Your task to perform on an android device: Search for Mexican restaurants on Maps Image 0: 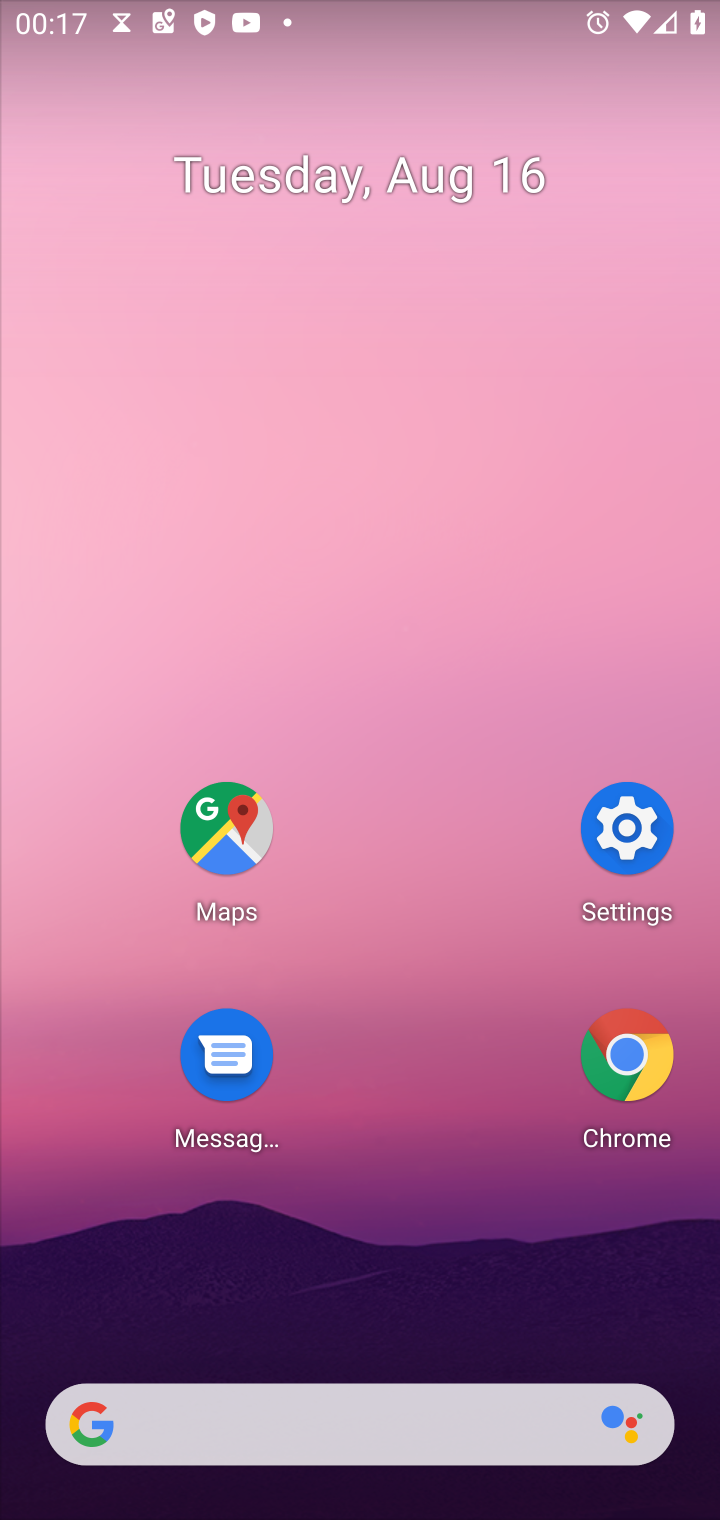
Step 0: press home button
Your task to perform on an android device: Search for Mexican restaurants on Maps Image 1: 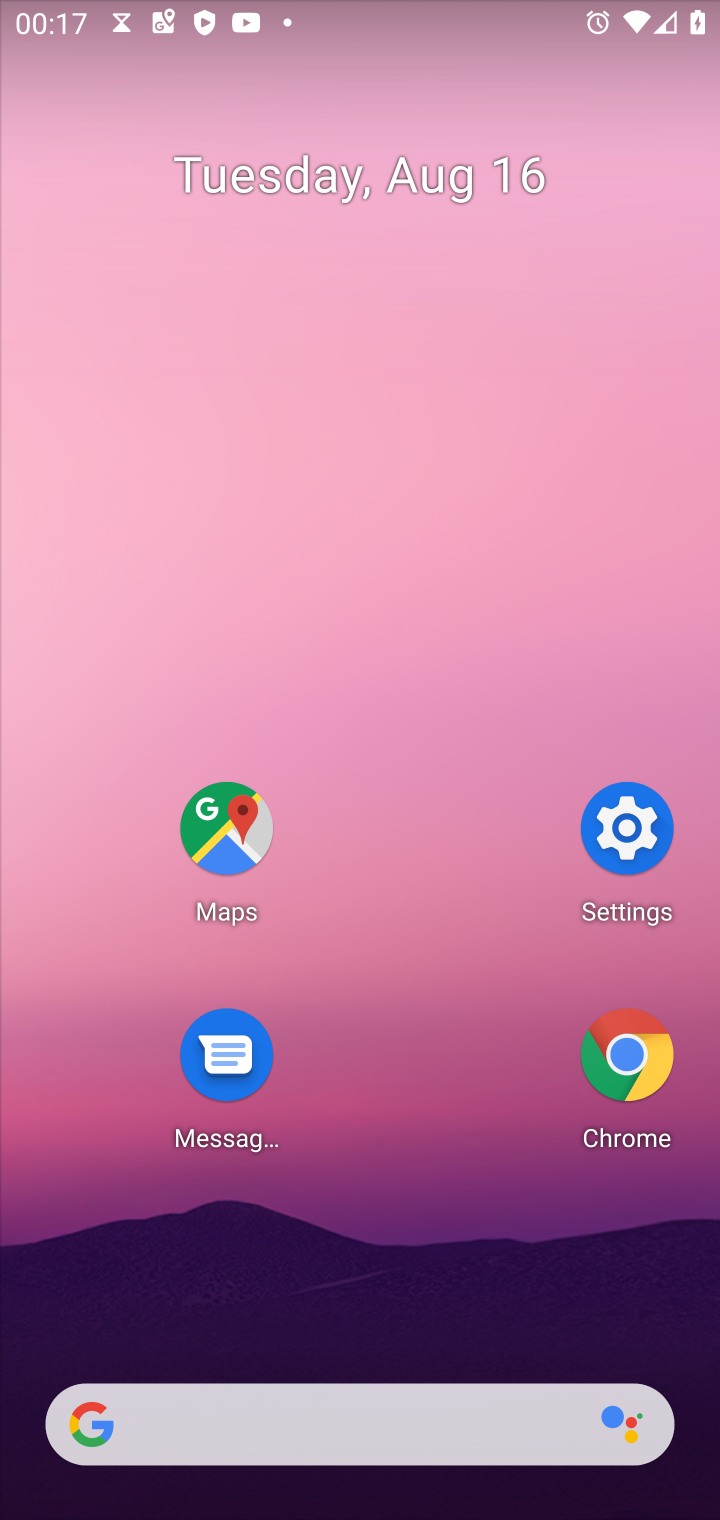
Step 1: click (214, 837)
Your task to perform on an android device: Search for Mexican restaurants on Maps Image 2: 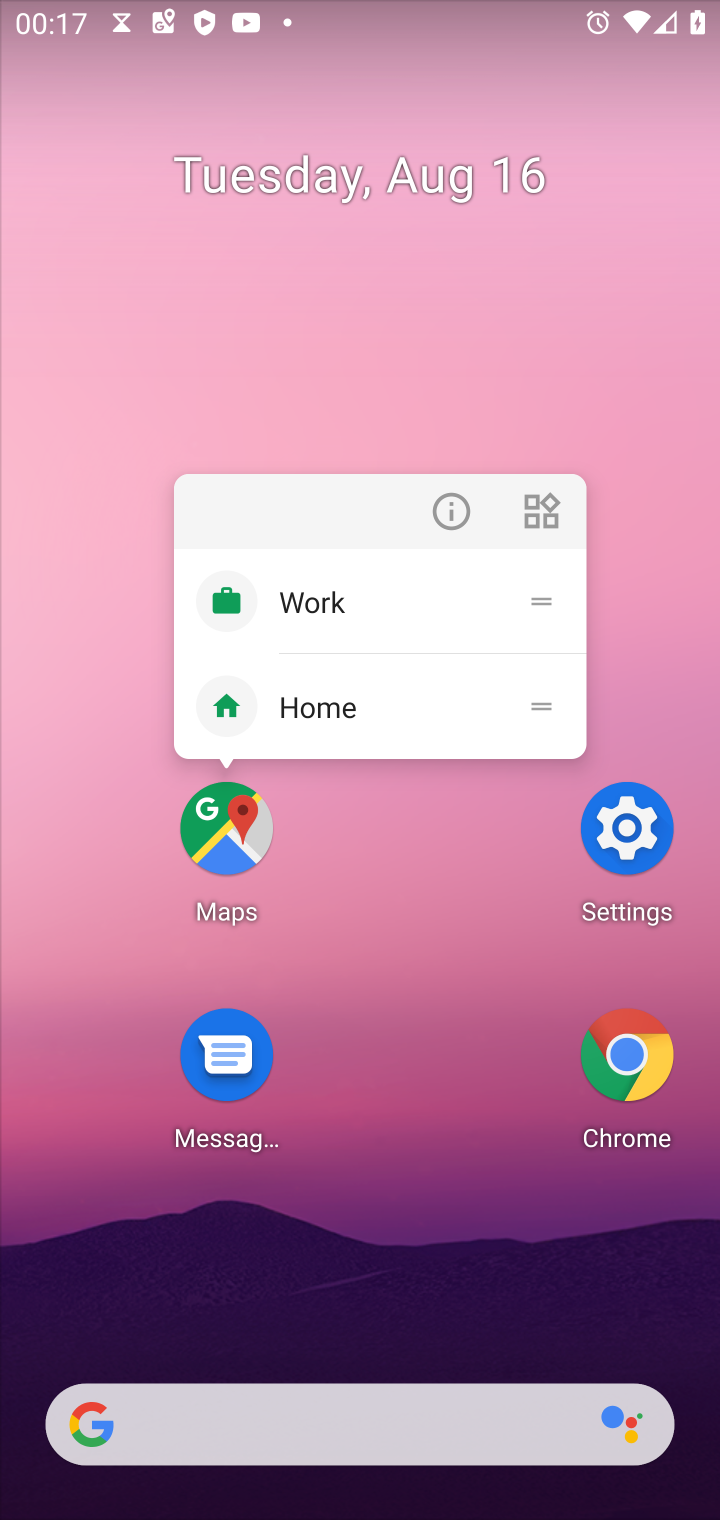
Step 2: click (229, 822)
Your task to perform on an android device: Search for Mexican restaurants on Maps Image 3: 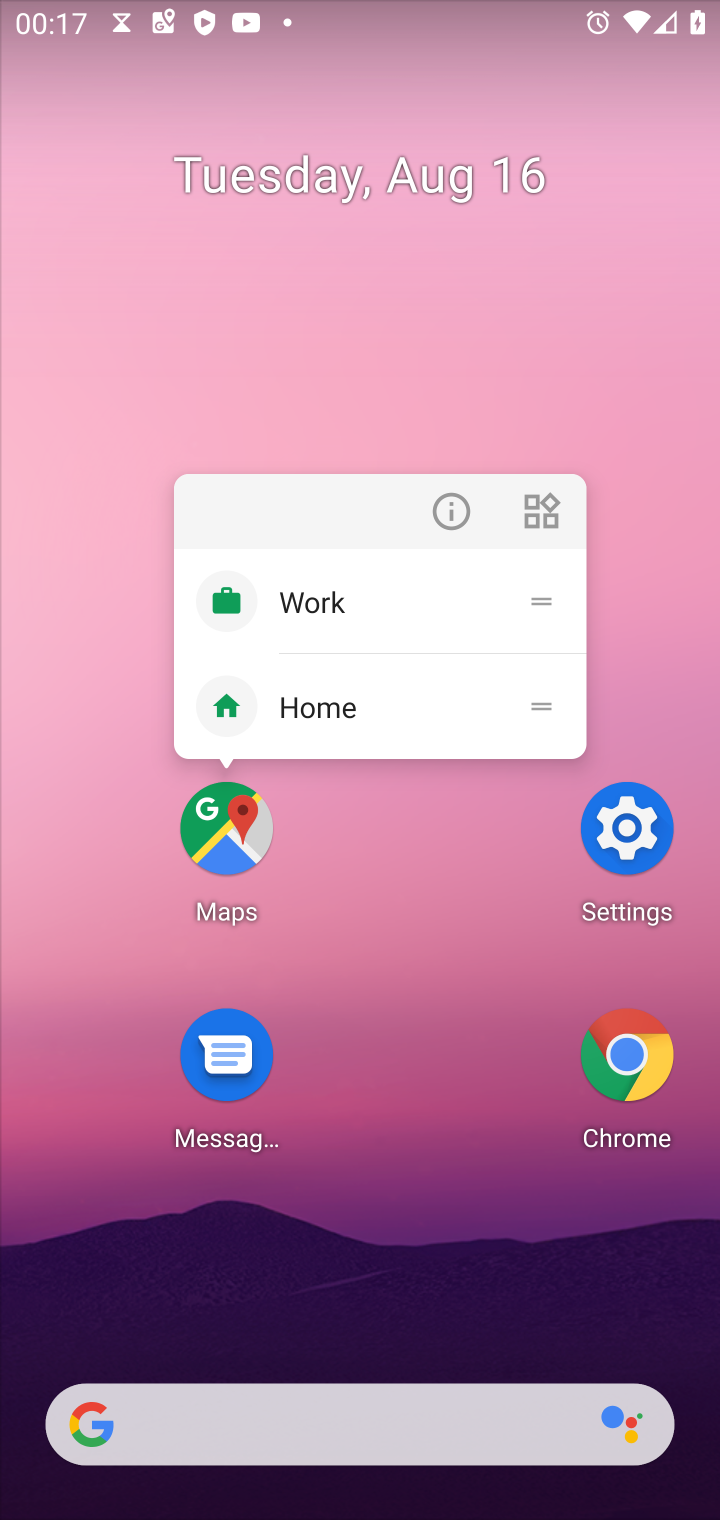
Step 3: click (229, 832)
Your task to perform on an android device: Search for Mexican restaurants on Maps Image 4: 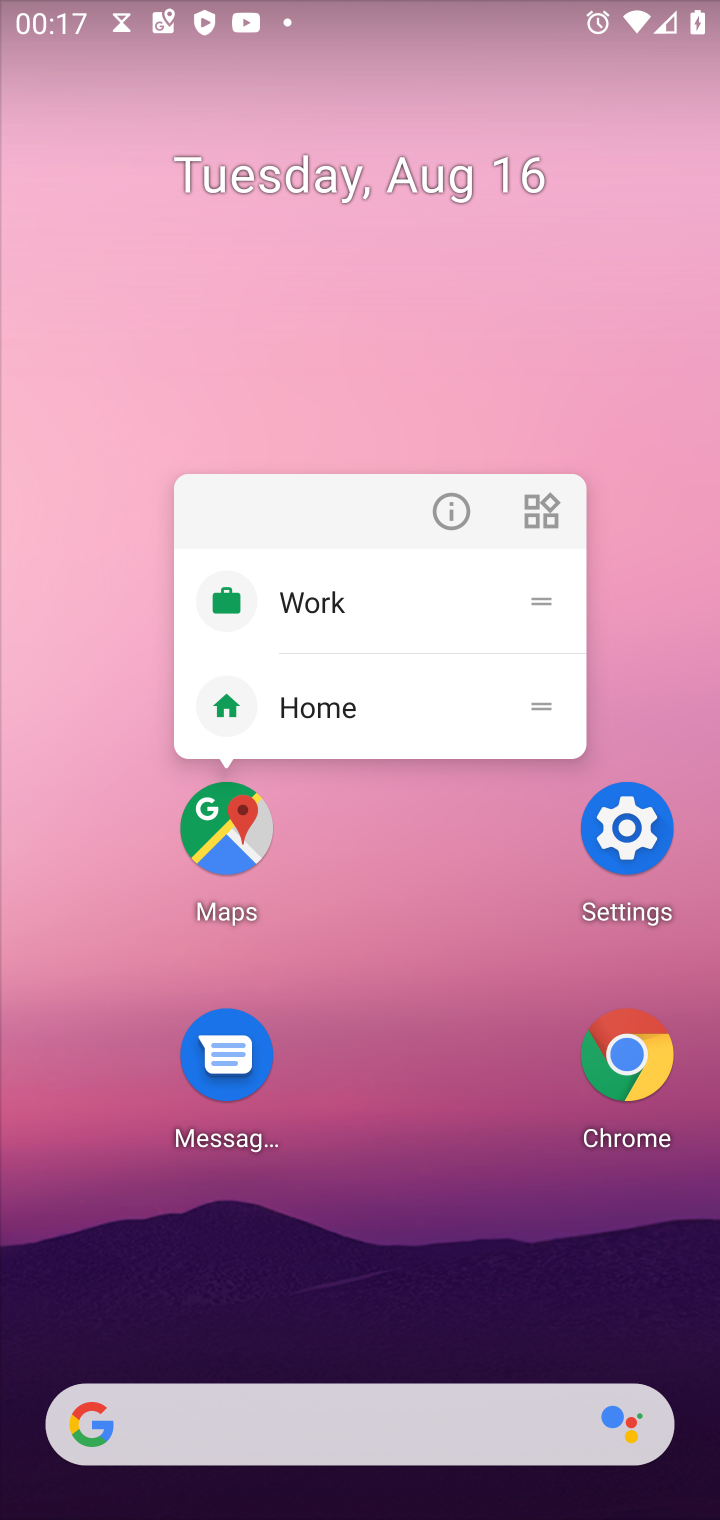
Step 4: click (229, 832)
Your task to perform on an android device: Search for Mexican restaurants on Maps Image 5: 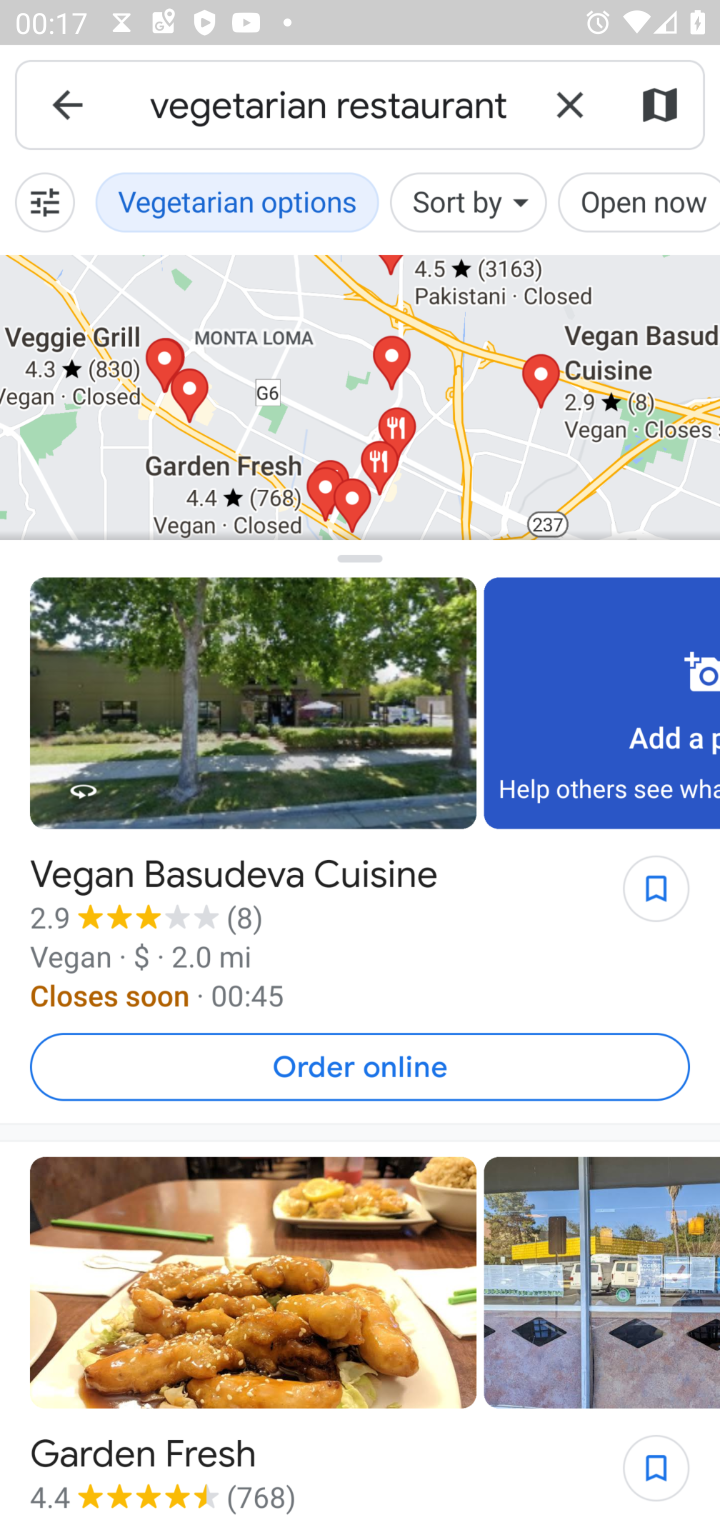
Step 5: click (229, 826)
Your task to perform on an android device: Search for Mexican restaurants on Maps Image 6: 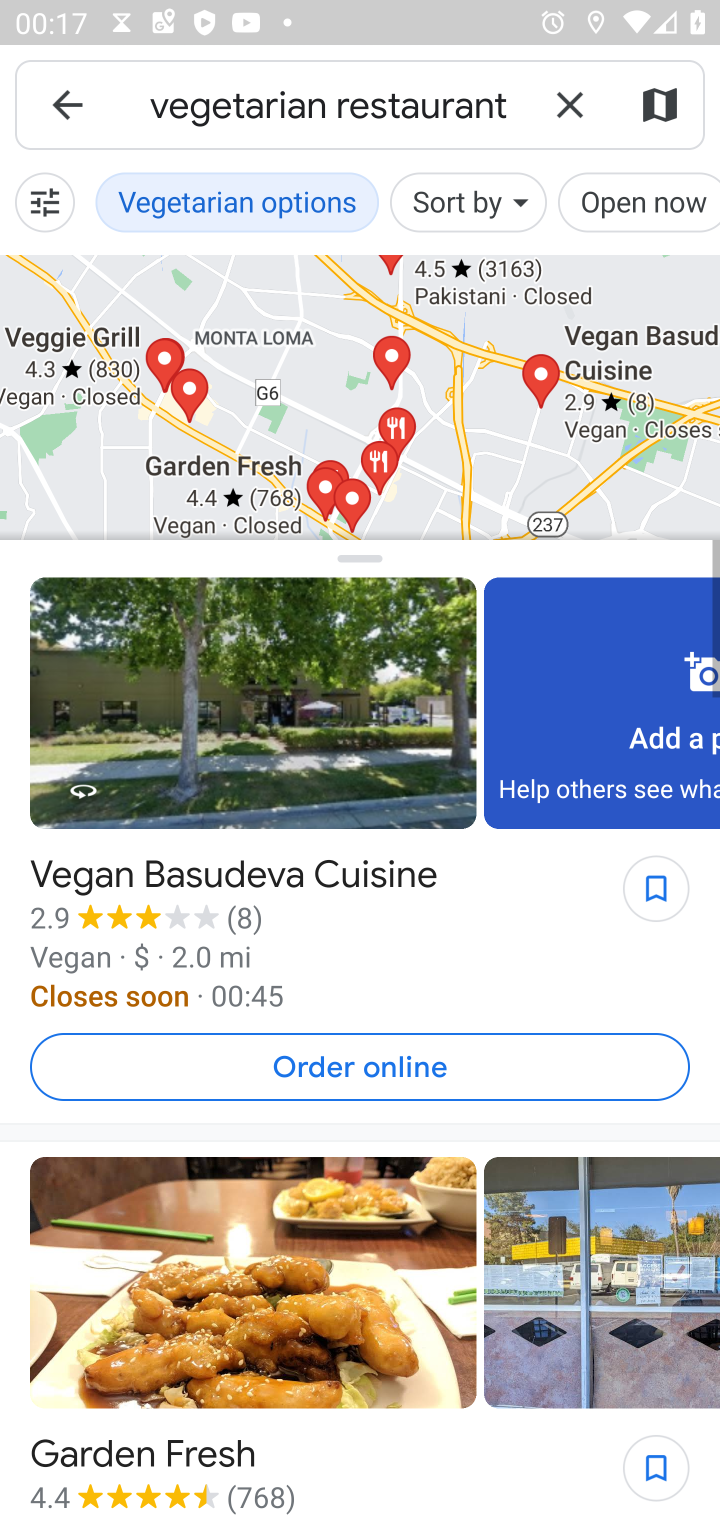
Step 6: click (577, 93)
Your task to perform on an android device: Search for Mexican restaurants on Maps Image 7: 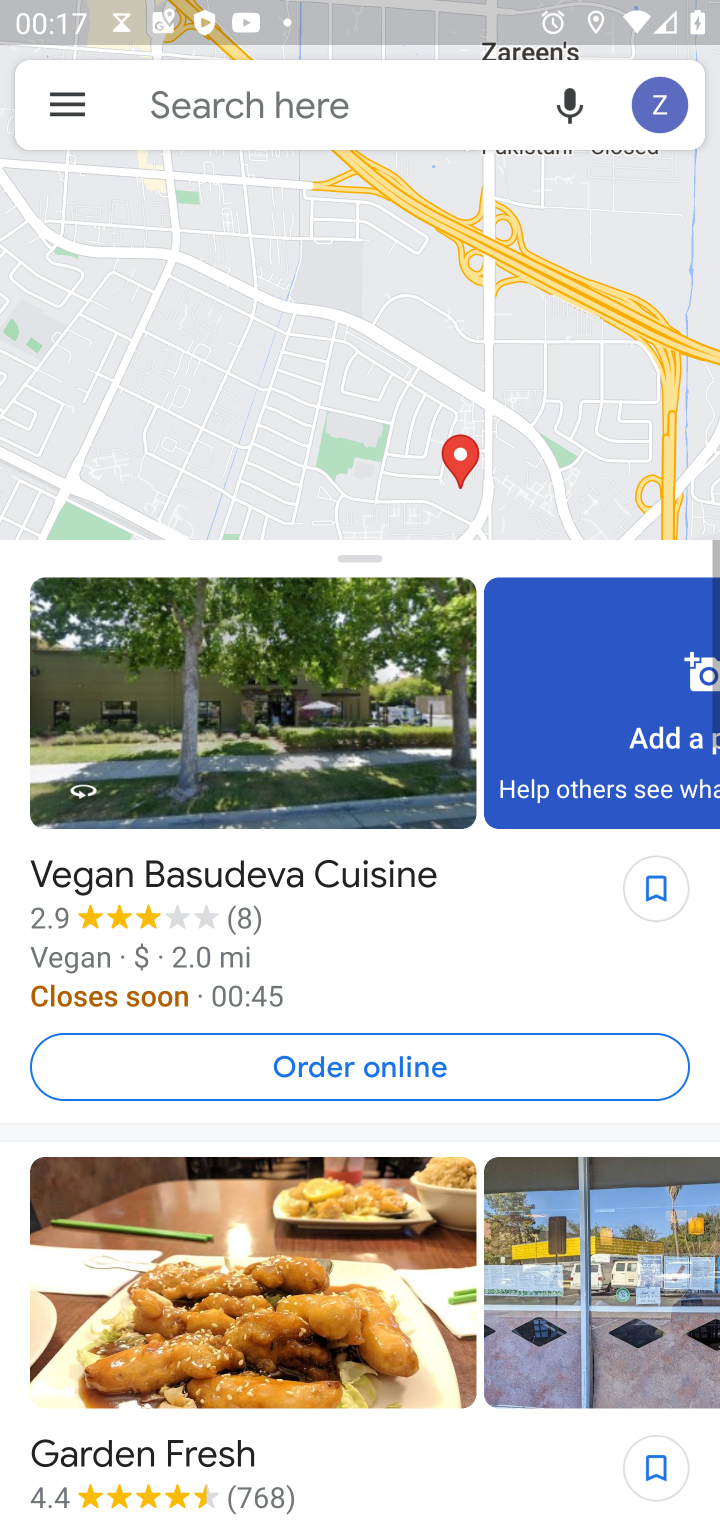
Step 7: click (568, 98)
Your task to perform on an android device: Search for Mexican restaurants on Maps Image 8: 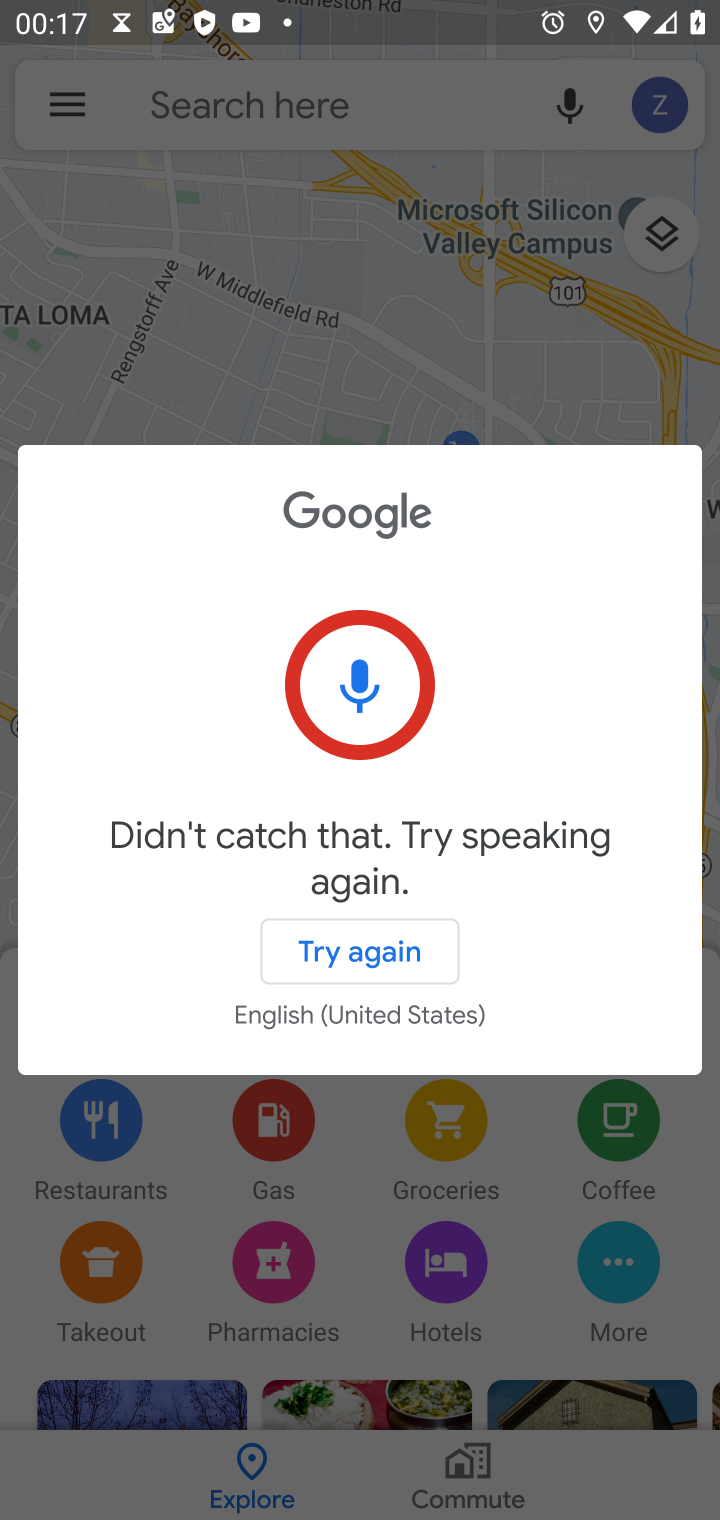
Step 8: click (220, 91)
Your task to perform on an android device: Search for Mexican restaurants on Maps Image 9: 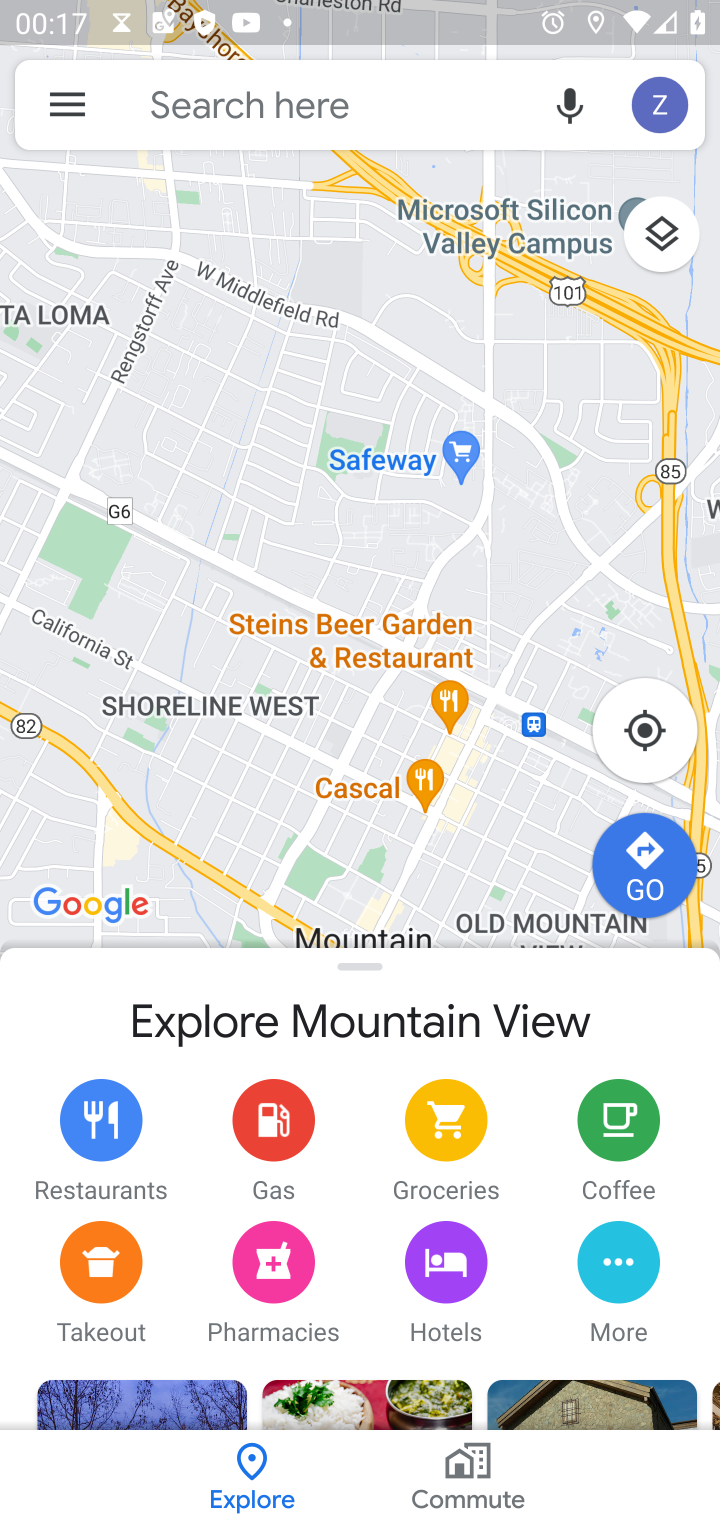
Step 9: click (170, 96)
Your task to perform on an android device: Search for Mexican restaurants on Maps Image 10: 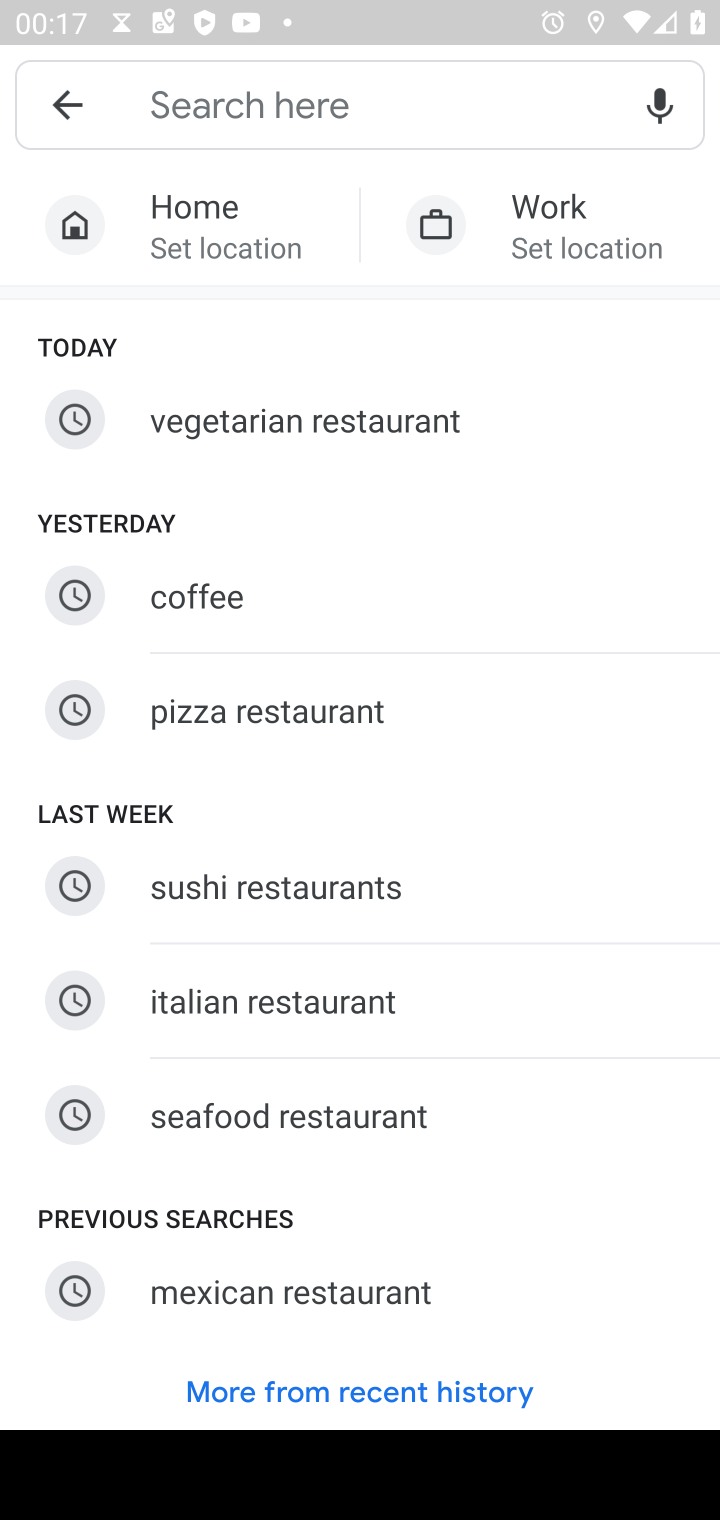
Step 10: type " Mexican restaurants"
Your task to perform on an android device: Search for Mexican restaurants on Maps Image 11: 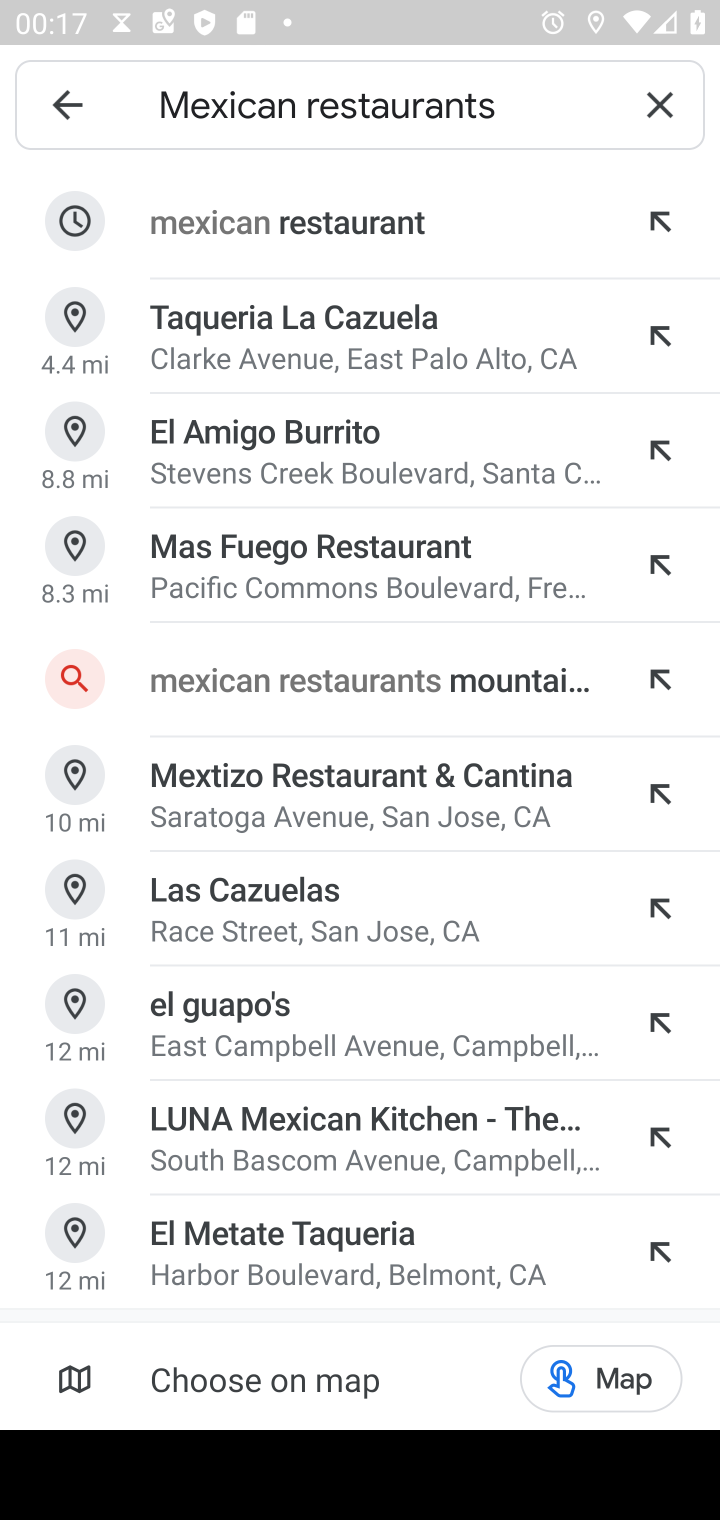
Step 11: click (273, 209)
Your task to perform on an android device: Search for Mexican restaurants on Maps Image 12: 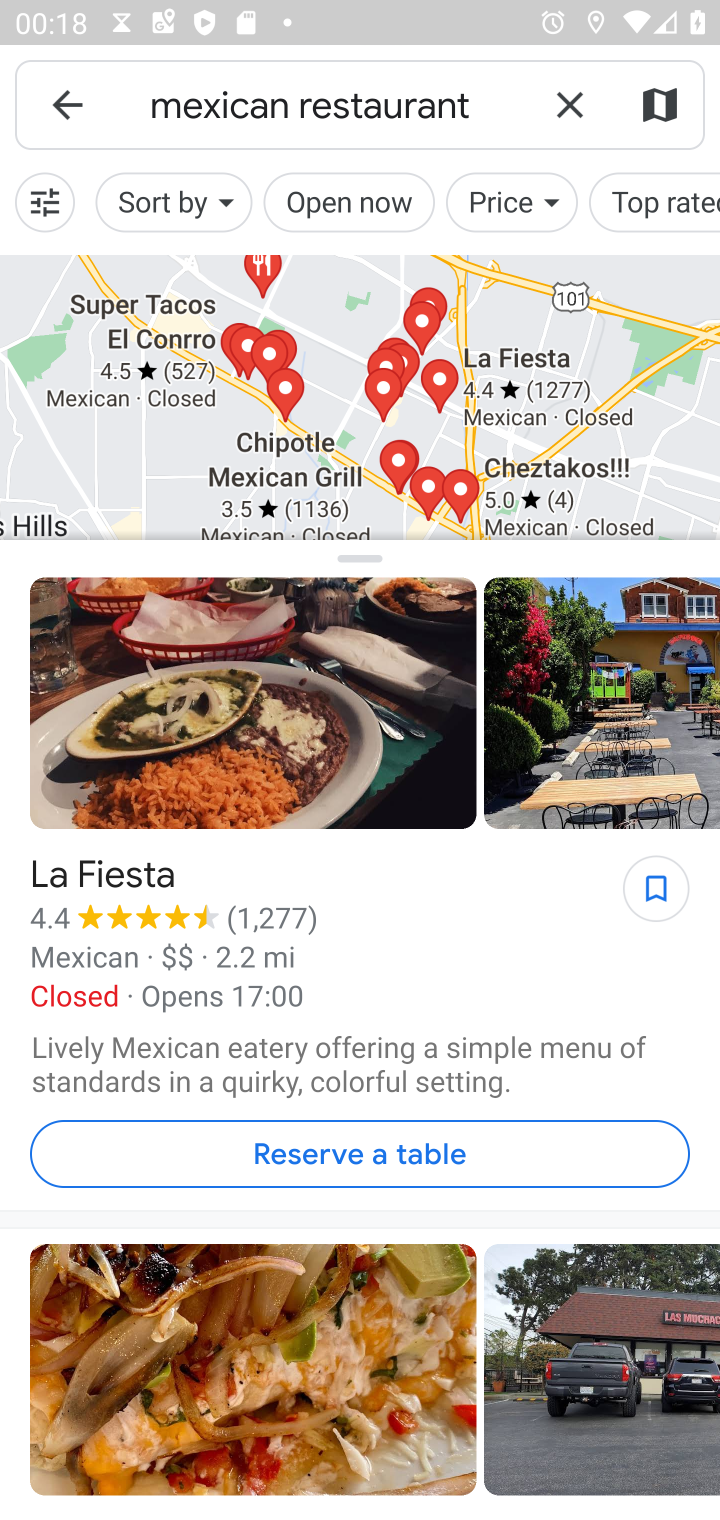
Step 12: task complete